Your task to perform on an android device: Turn off the flashlight Image 0: 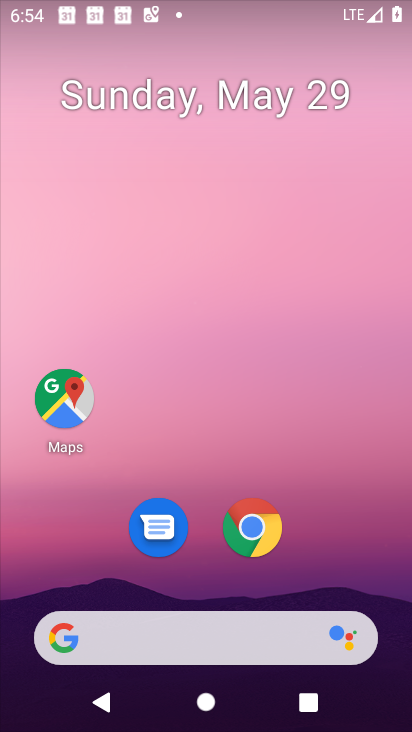
Step 0: drag from (410, 571) to (333, 88)
Your task to perform on an android device: Turn off the flashlight Image 1: 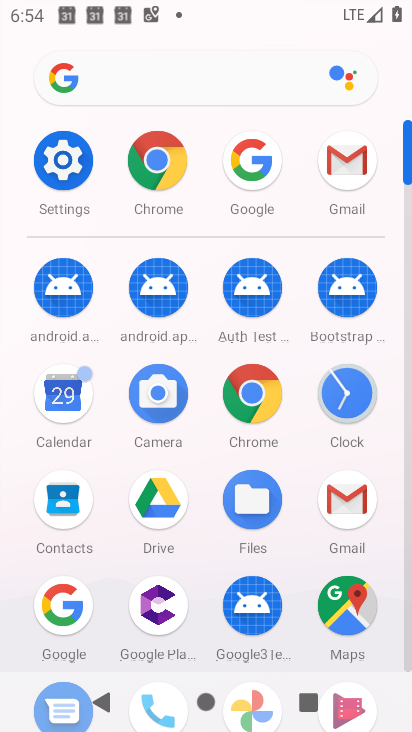
Step 1: click (89, 157)
Your task to perform on an android device: Turn off the flashlight Image 2: 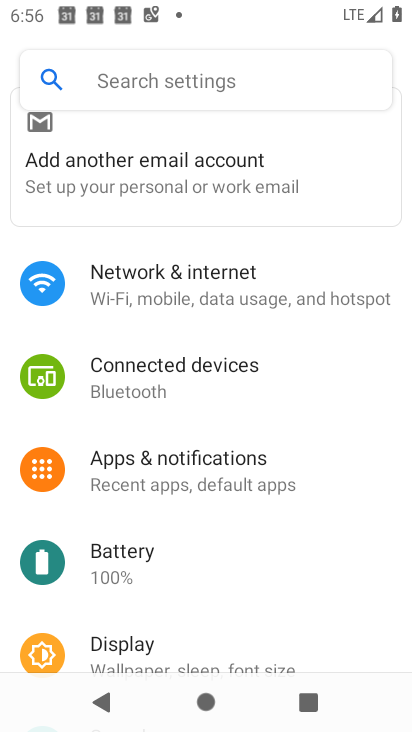
Step 2: task complete